Your task to perform on an android device: Go to battery settings Image 0: 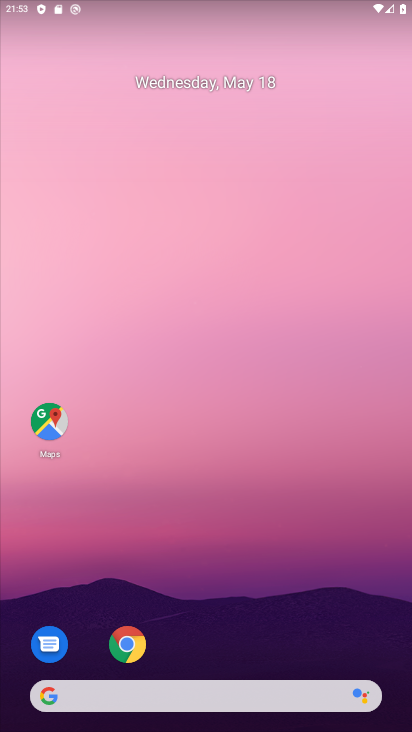
Step 0: drag from (273, 570) to (287, 62)
Your task to perform on an android device: Go to battery settings Image 1: 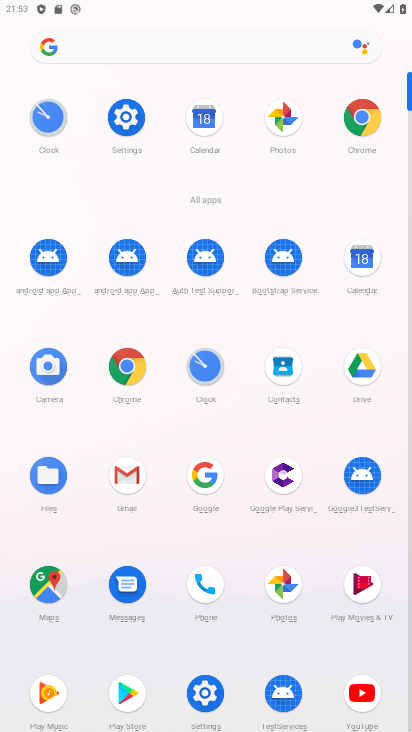
Step 1: click (125, 119)
Your task to perform on an android device: Go to battery settings Image 2: 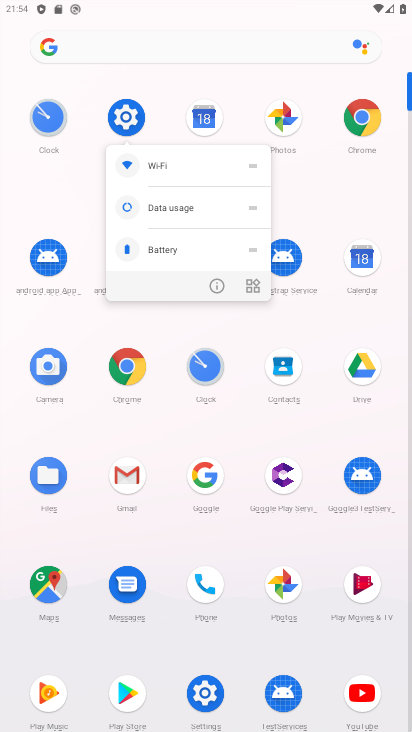
Step 2: click (125, 118)
Your task to perform on an android device: Go to battery settings Image 3: 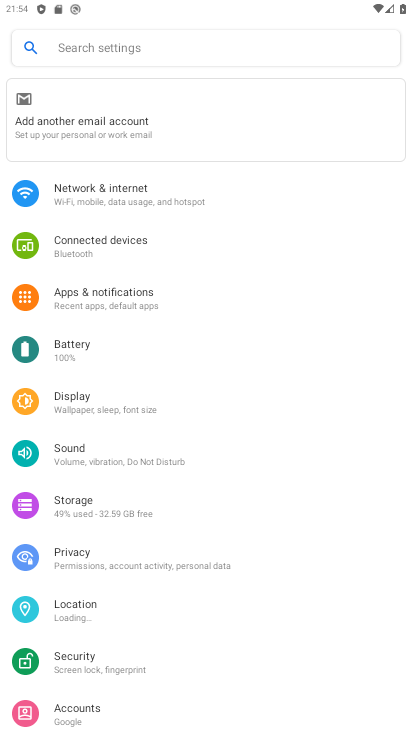
Step 3: drag from (182, 568) to (239, 310)
Your task to perform on an android device: Go to battery settings Image 4: 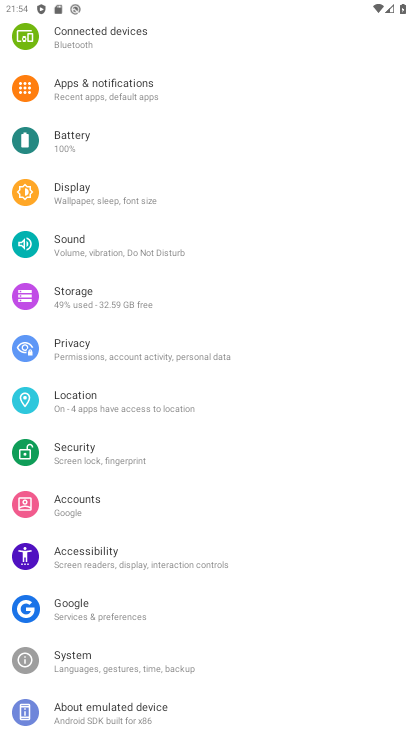
Step 4: drag from (183, 599) to (229, 253)
Your task to perform on an android device: Go to battery settings Image 5: 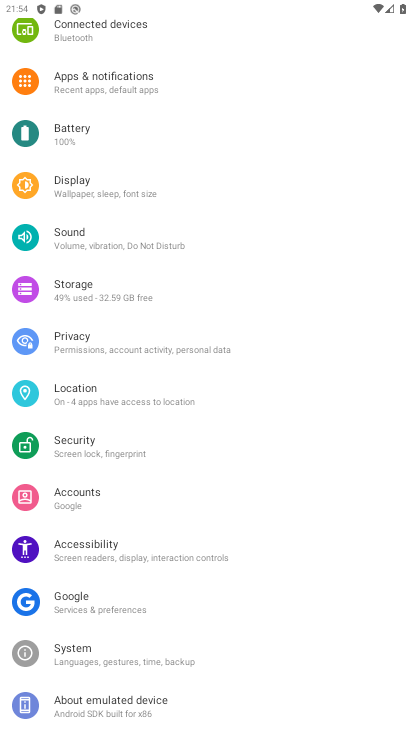
Step 5: click (89, 133)
Your task to perform on an android device: Go to battery settings Image 6: 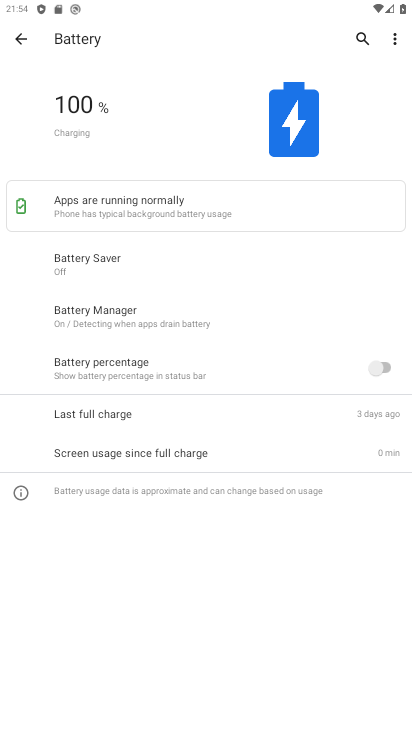
Step 6: task complete